Your task to perform on an android device: Open calendar and show me the second week of next month Image 0: 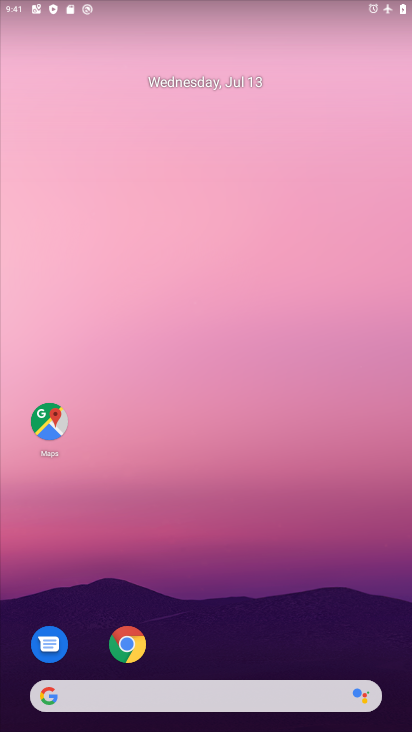
Step 0: drag from (247, 725) to (271, 90)
Your task to perform on an android device: Open calendar and show me the second week of next month Image 1: 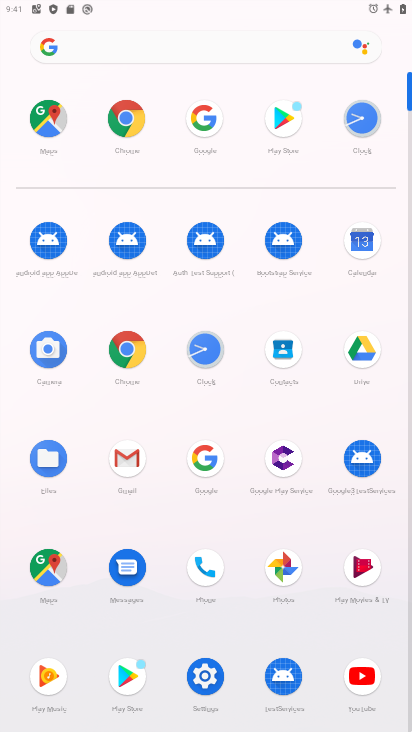
Step 1: click (361, 247)
Your task to perform on an android device: Open calendar and show me the second week of next month Image 2: 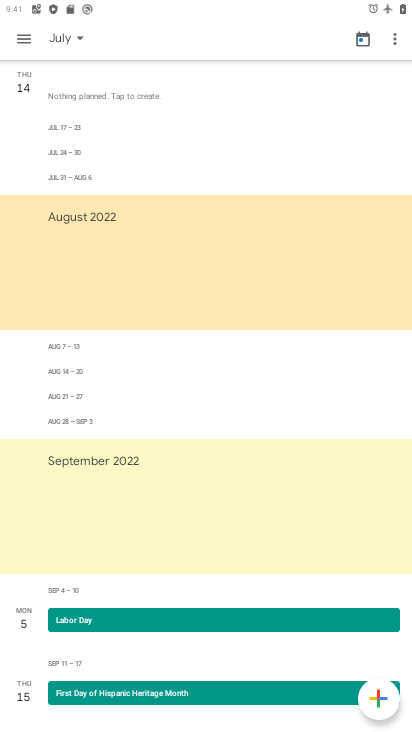
Step 2: click (80, 37)
Your task to perform on an android device: Open calendar and show me the second week of next month Image 3: 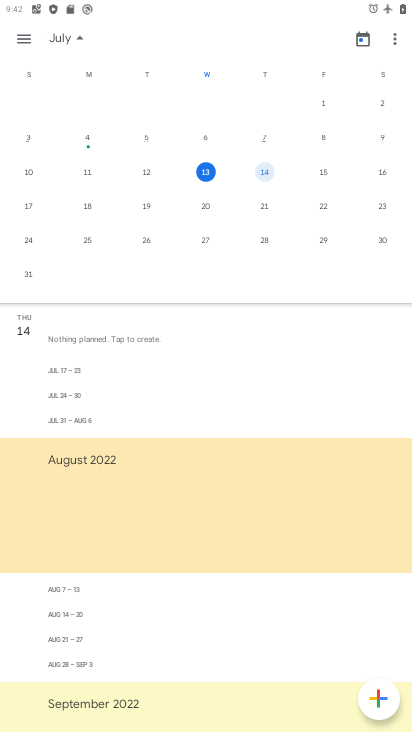
Step 3: drag from (351, 197) to (37, 185)
Your task to perform on an android device: Open calendar and show me the second week of next month Image 4: 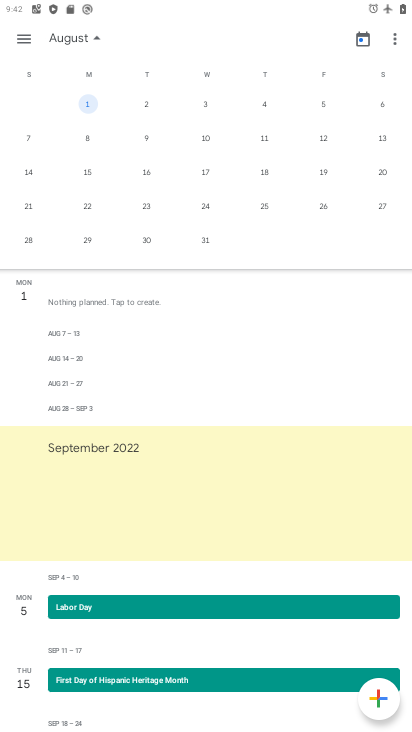
Step 4: click (85, 135)
Your task to perform on an android device: Open calendar and show me the second week of next month Image 5: 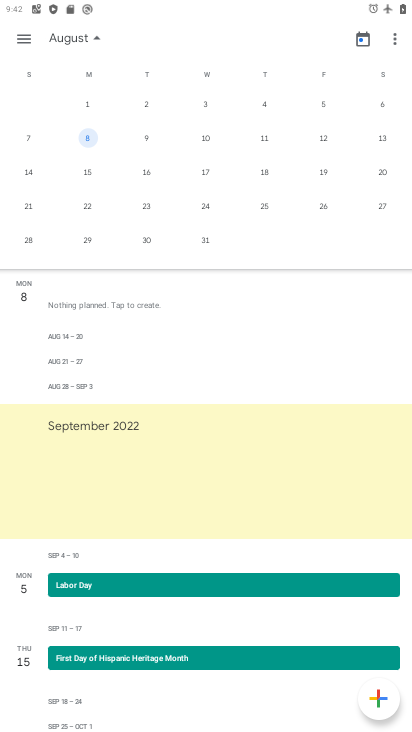
Step 5: click (20, 40)
Your task to perform on an android device: Open calendar and show me the second week of next month Image 6: 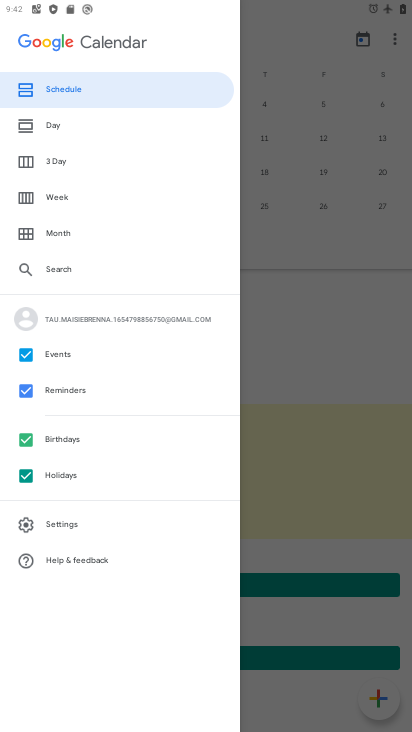
Step 6: click (61, 195)
Your task to perform on an android device: Open calendar and show me the second week of next month Image 7: 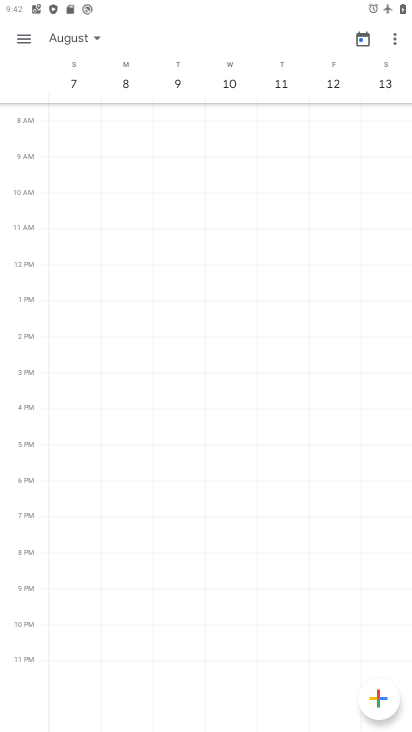
Step 7: task complete